Your task to perform on an android device: change the clock style Image 0: 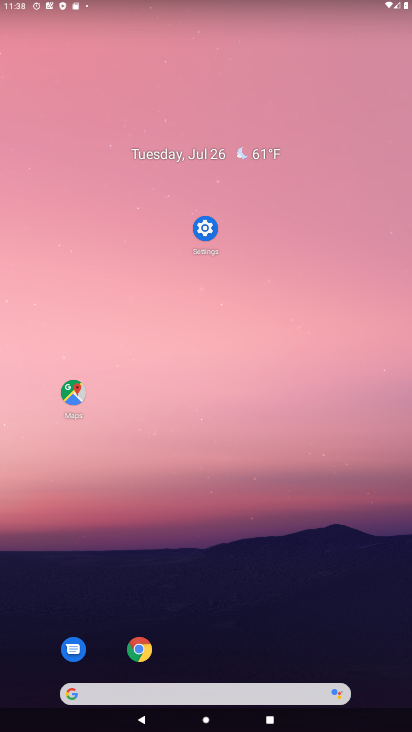
Step 0: click (218, 347)
Your task to perform on an android device: change the clock style Image 1: 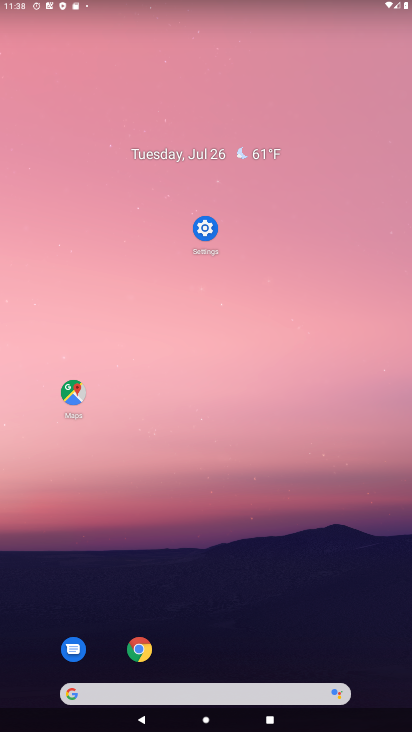
Step 1: drag from (241, 615) to (252, 222)
Your task to perform on an android device: change the clock style Image 2: 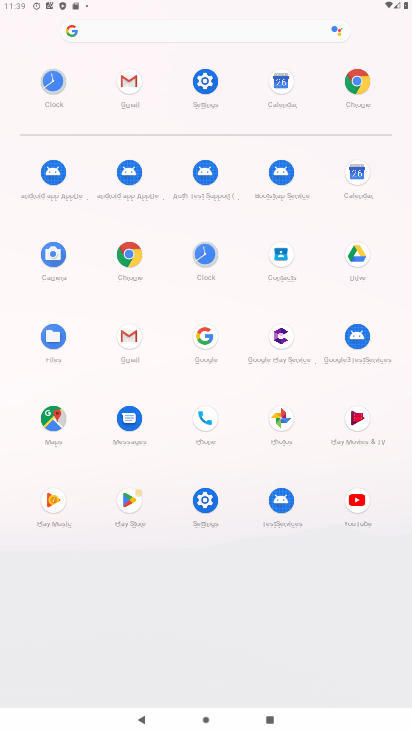
Step 2: click (202, 253)
Your task to perform on an android device: change the clock style Image 3: 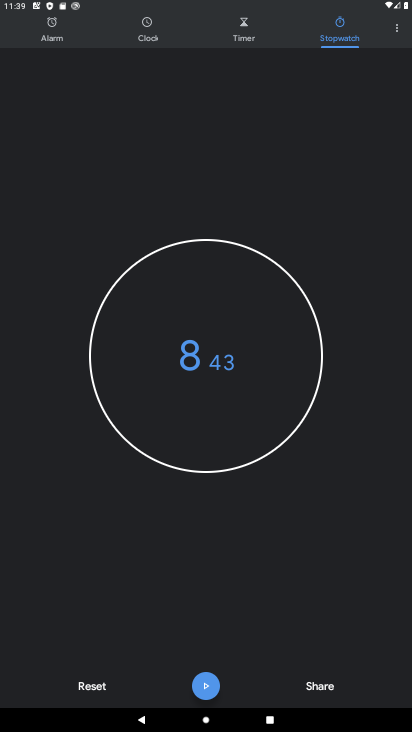
Step 3: drag from (397, 35) to (333, 53)
Your task to perform on an android device: change the clock style Image 4: 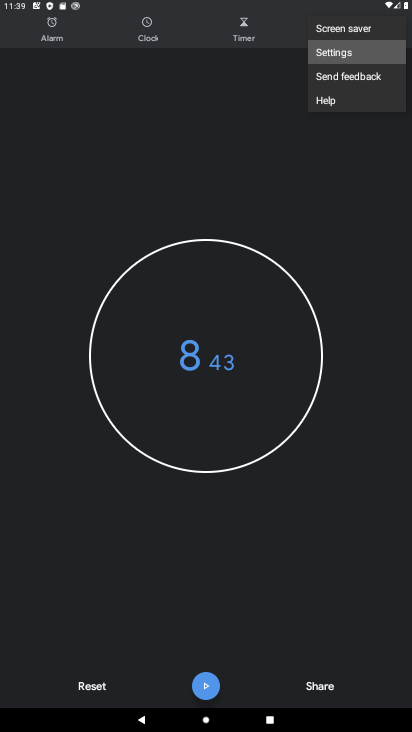
Step 4: click (331, 55)
Your task to perform on an android device: change the clock style Image 5: 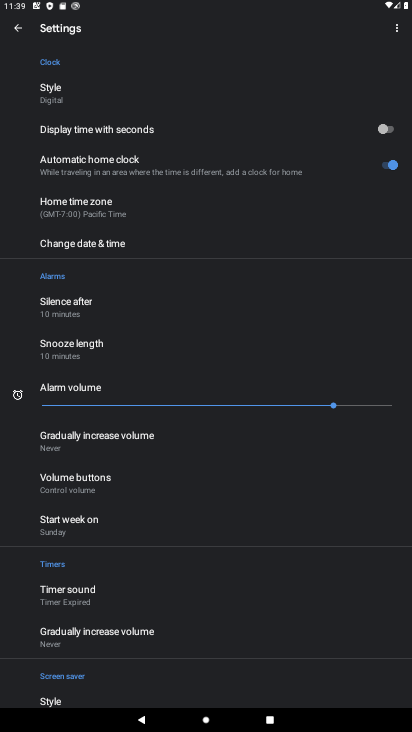
Step 5: click (54, 93)
Your task to perform on an android device: change the clock style Image 6: 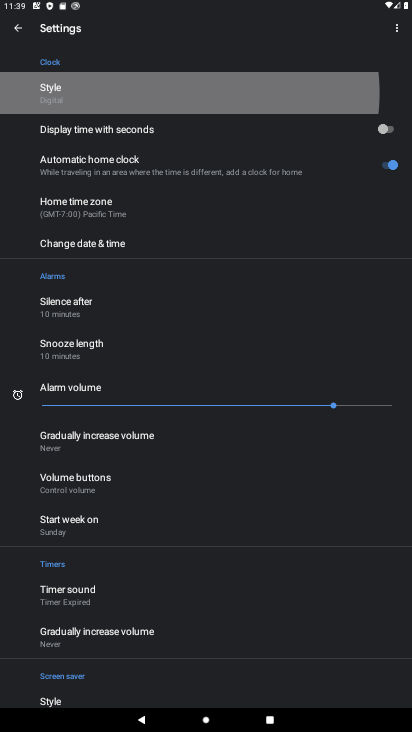
Step 6: click (54, 88)
Your task to perform on an android device: change the clock style Image 7: 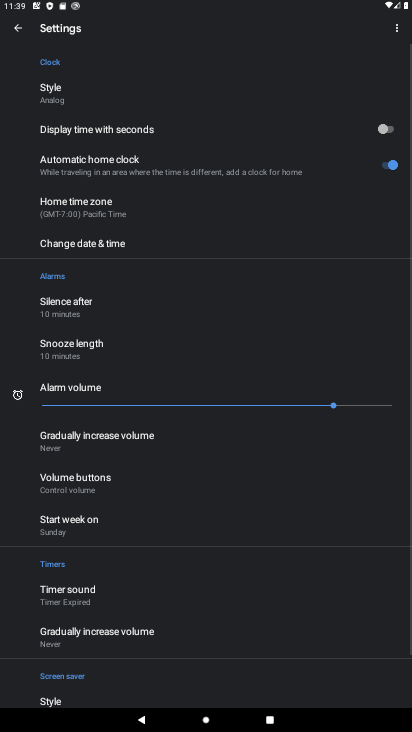
Step 7: click (52, 91)
Your task to perform on an android device: change the clock style Image 8: 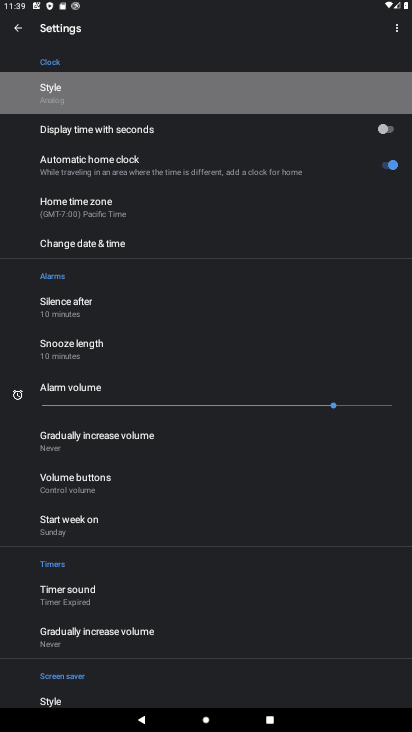
Step 8: click (54, 91)
Your task to perform on an android device: change the clock style Image 9: 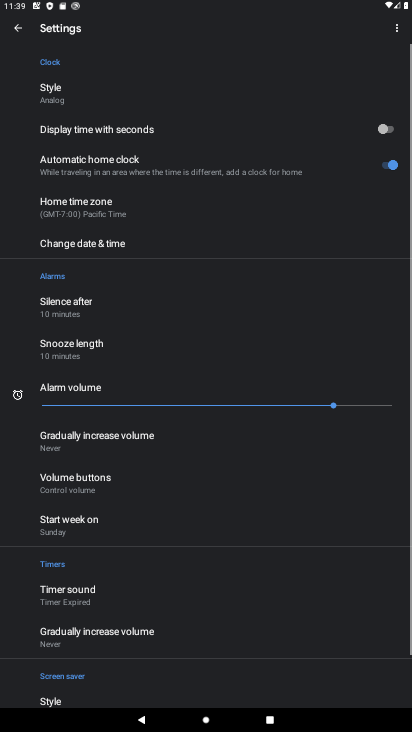
Step 9: click (63, 100)
Your task to perform on an android device: change the clock style Image 10: 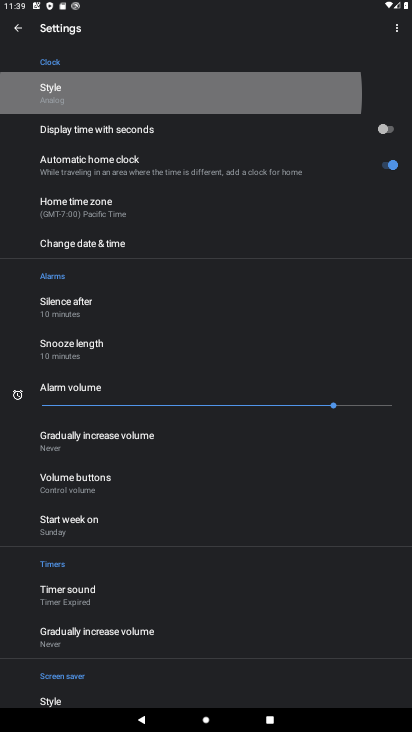
Step 10: click (62, 102)
Your task to perform on an android device: change the clock style Image 11: 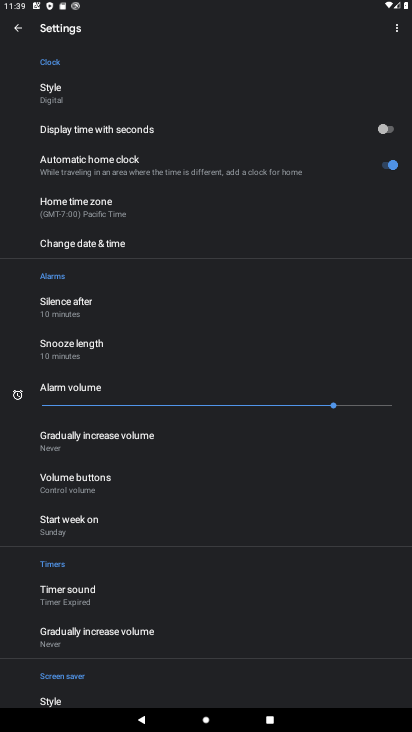
Step 11: click (64, 101)
Your task to perform on an android device: change the clock style Image 12: 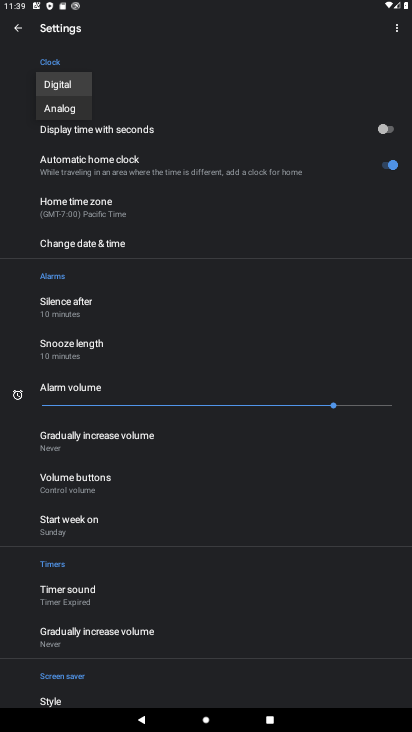
Step 12: click (70, 105)
Your task to perform on an android device: change the clock style Image 13: 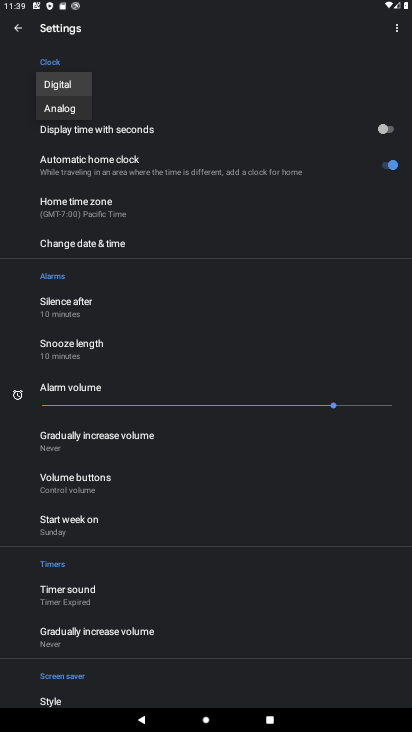
Step 13: click (70, 105)
Your task to perform on an android device: change the clock style Image 14: 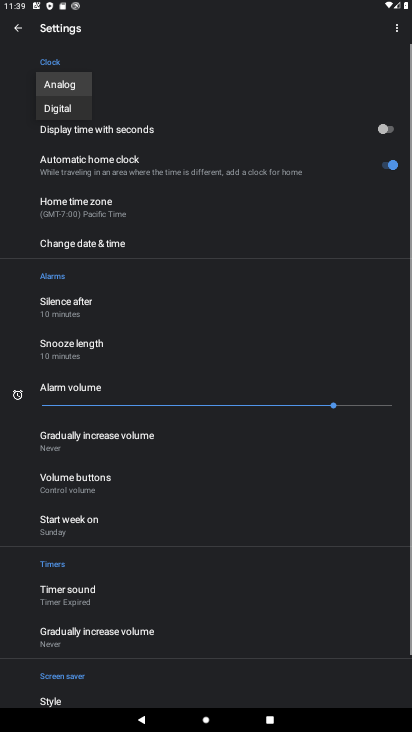
Step 14: task complete